Your task to perform on an android device: add a contact in the contacts app Image 0: 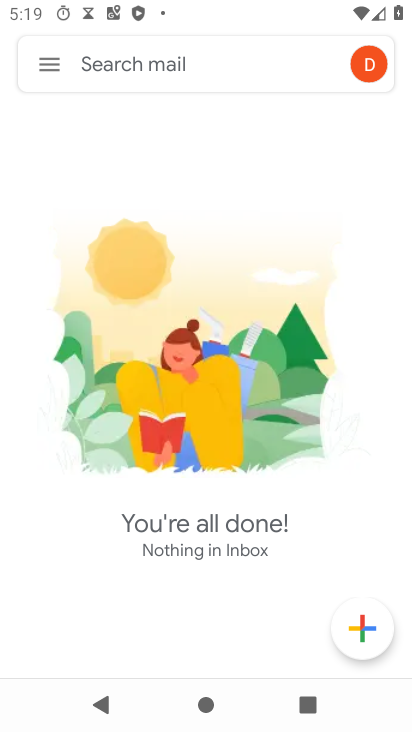
Step 0: press back button
Your task to perform on an android device: add a contact in the contacts app Image 1: 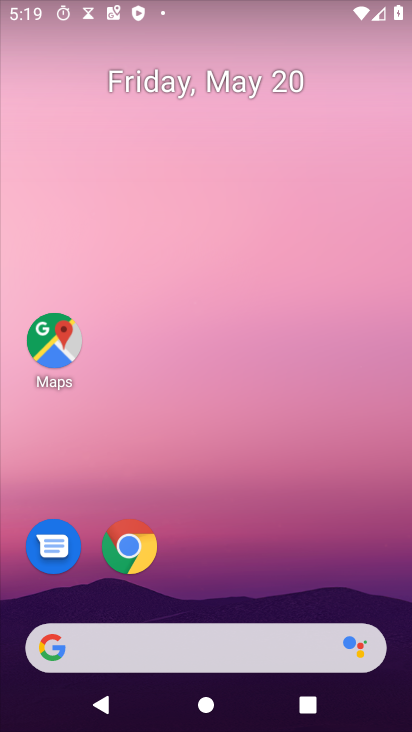
Step 1: drag from (241, 584) to (230, 166)
Your task to perform on an android device: add a contact in the contacts app Image 2: 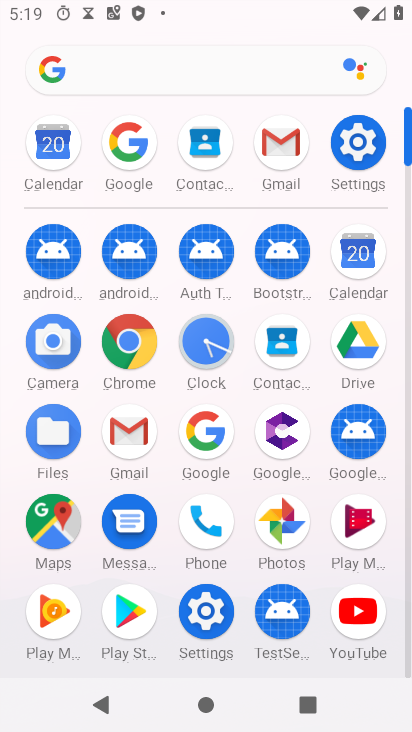
Step 2: click (292, 342)
Your task to perform on an android device: add a contact in the contacts app Image 3: 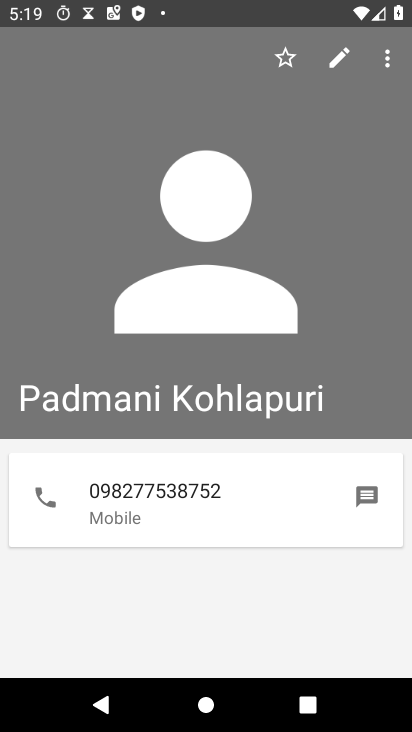
Step 3: press back button
Your task to perform on an android device: add a contact in the contacts app Image 4: 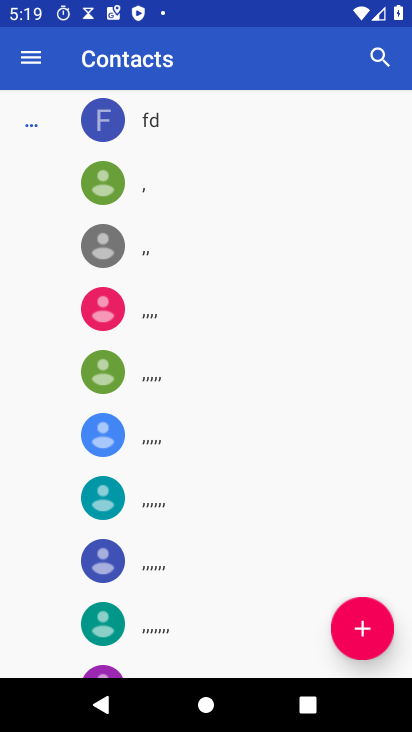
Step 4: click (364, 630)
Your task to perform on an android device: add a contact in the contacts app Image 5: 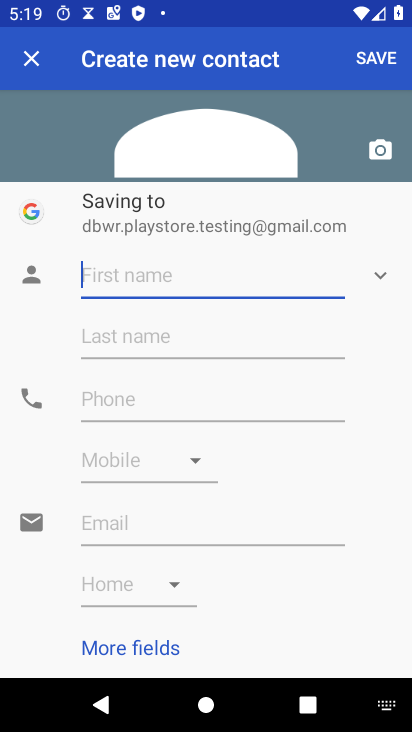
Step 5: type "Krishna murari"
Your task to perform on an android device: add a contact in the contacts app Image 6: 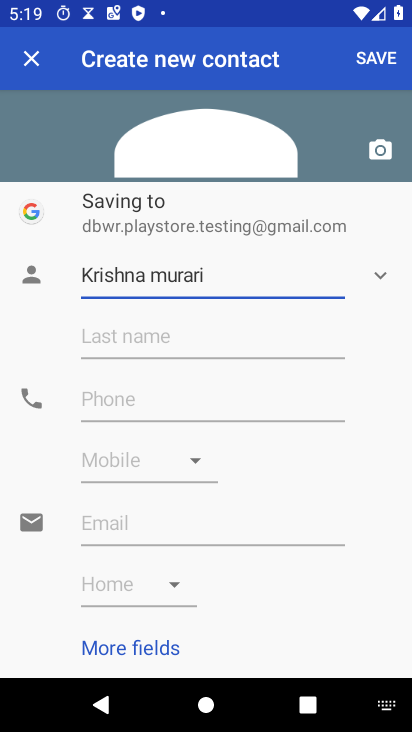
Step 6: click (161, 322)
Your task to perform on an android device: add a contact in the contacts app Image 7: 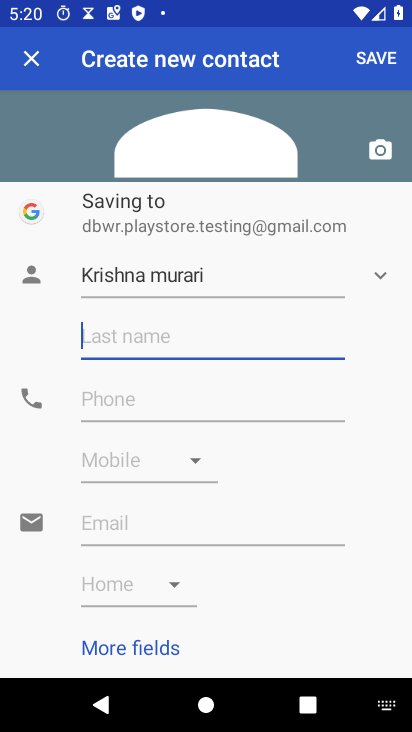
Step 7: type "Mishra"
Your task to perform on an android device: add a contact in the contacts app Image 8: 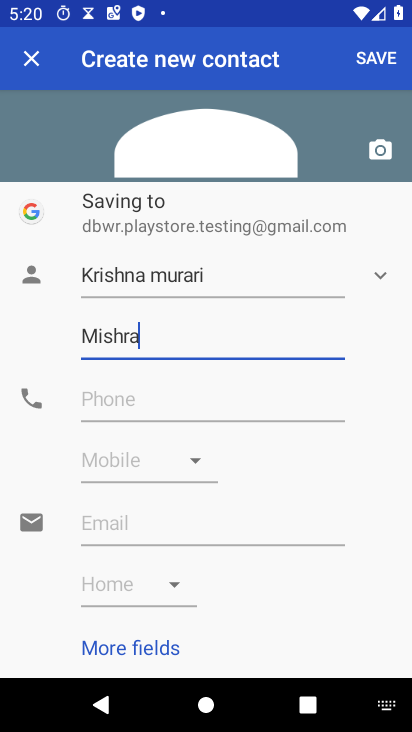
Step 8: click (156, 399)
Your task to perform on an android device: add a contact in the contacts app Image 9: 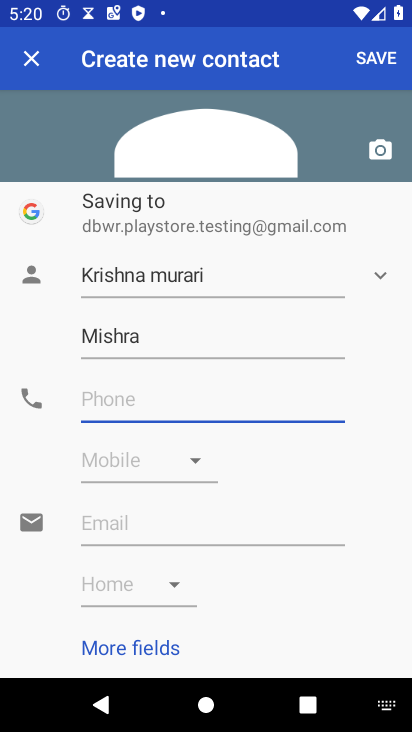
Step 9: type "098765456789"
Your task to perform on an android device: add a contact in the contacts app Image 10: 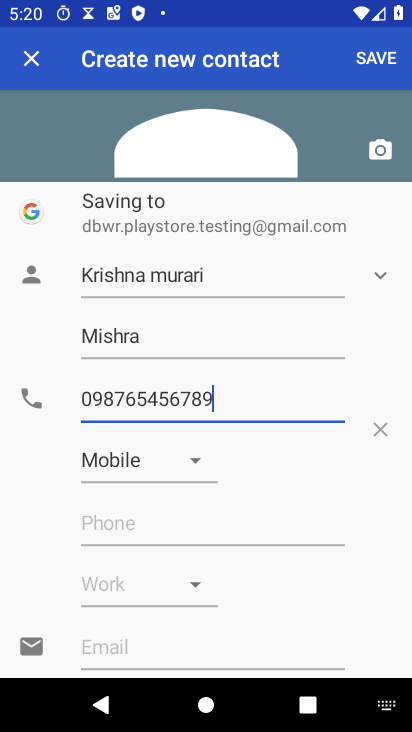
Step 10: click (377, 61)
Your task to perform on an android device: add a contact in the contacts app Image 11: 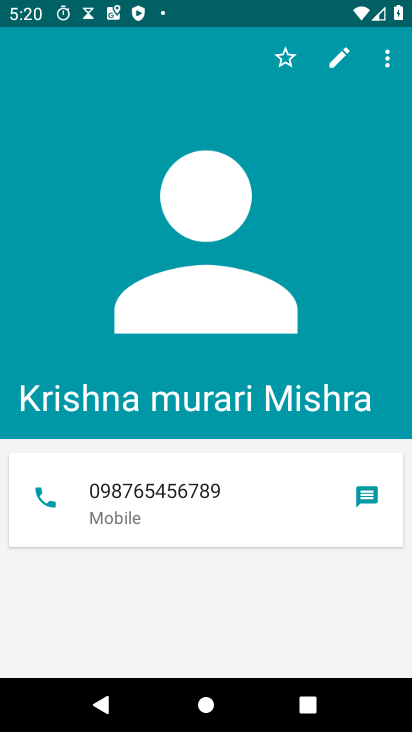
Step 11: task complete